Your task to perform on an android device: turn notification dots on Image 0: 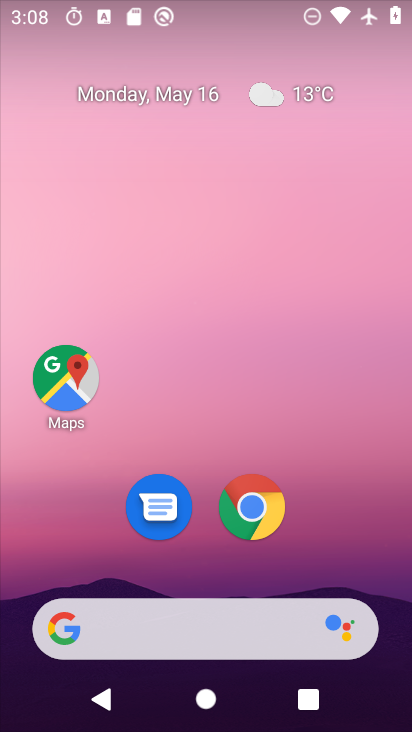
Step 0: drag from (176, 578) to (303, 227)
Your task to perform on an android device: turn notification dots on Image 1: 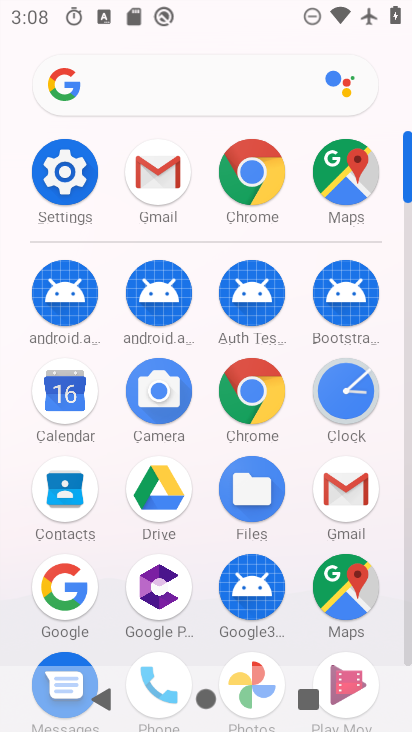
Step 1: click (91, 183)
Your task to perform on an android device: turn notification dots on Image 2: 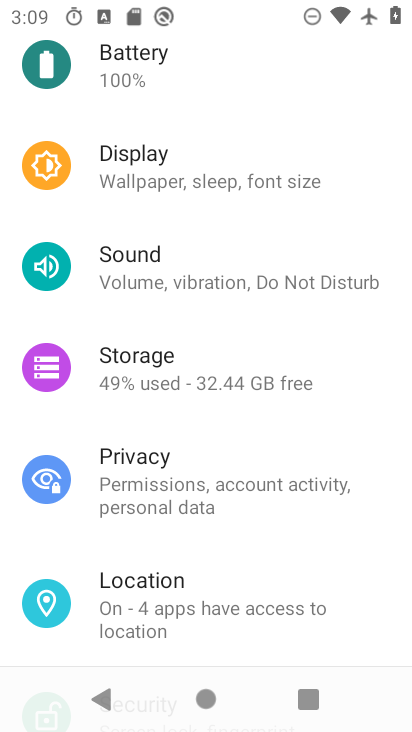
Step 2: drag from (243, 569) to (238, 707)
Your task to perform on an android device: turn notification dots on Image 3: 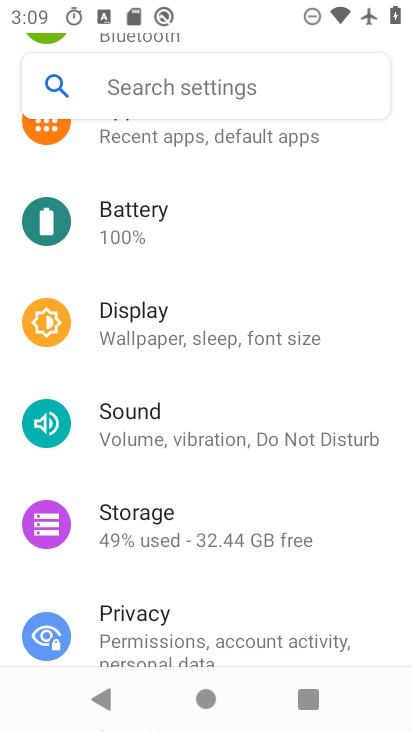
Step 3: drag from (250, 379) to (265, 616)
Your task to perform on an android device: turn notification dots on Image 4: 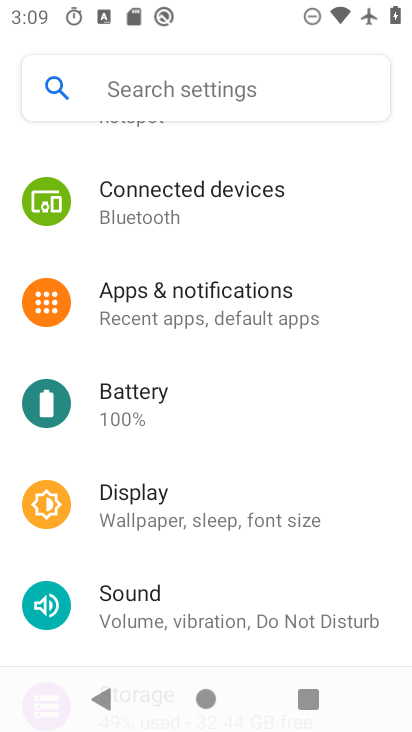
Step 4: click (249, 305)
Your task to perform on an android device: turn notification dots on Image 5: 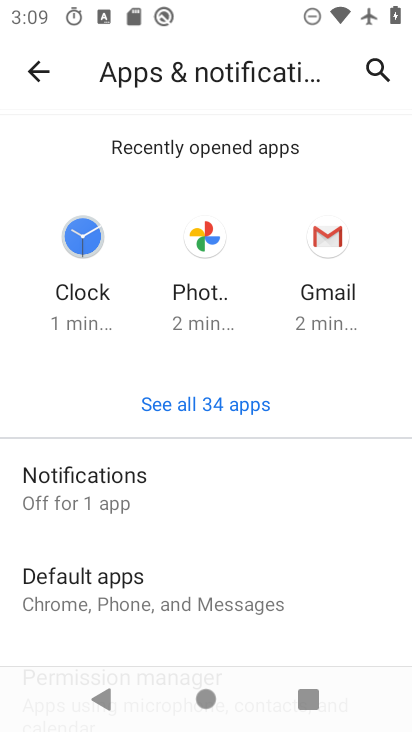
Step 5: drag from (178, 566) to (234, 172)
Your task to perform on an android device: turn notification dots on Image 6: 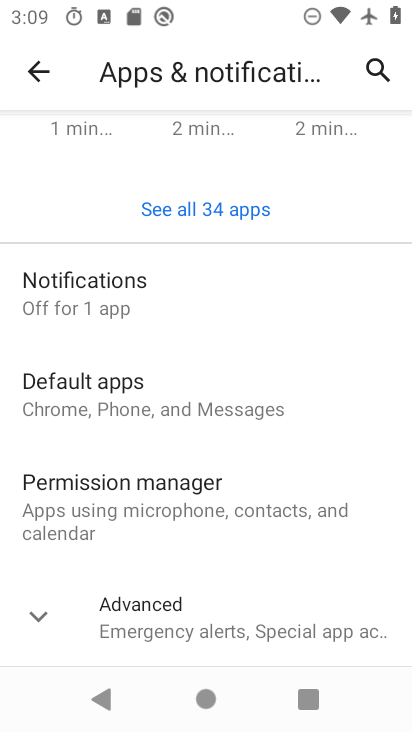
Step 6: click (176, 633)
Your task to perform on an android device: turn notification dots on Image 7: 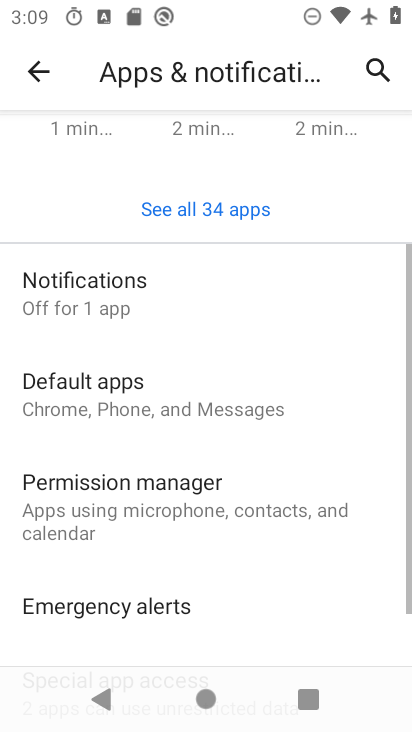
Step 7: drag from (175, 606) to (253, 178)
Your task to perform on an android device: turn notification dots on Image 8: 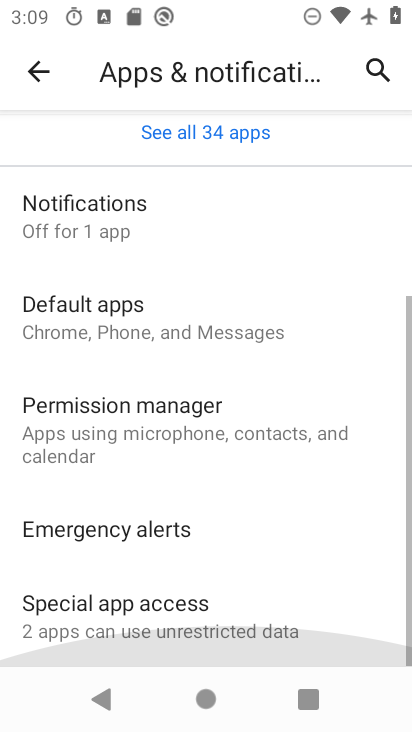
Step 8: drag from (265, 197) to (236, 469)
Your task to perform on an android device: turn notification dots on Image 9: 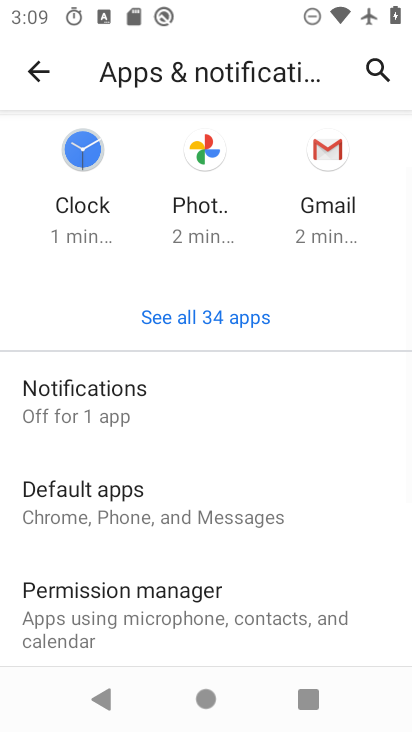
Step 9: click (167, 419)
Your task to perform on an android device: turn notification dots on Image 10: 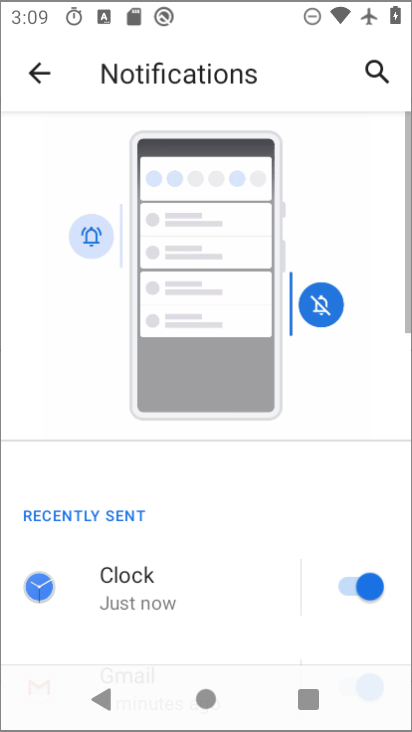
Step 10: drag from (188, 486) to (285, 131)
Your task to perform on an android device: turn notification dots on Image 11: 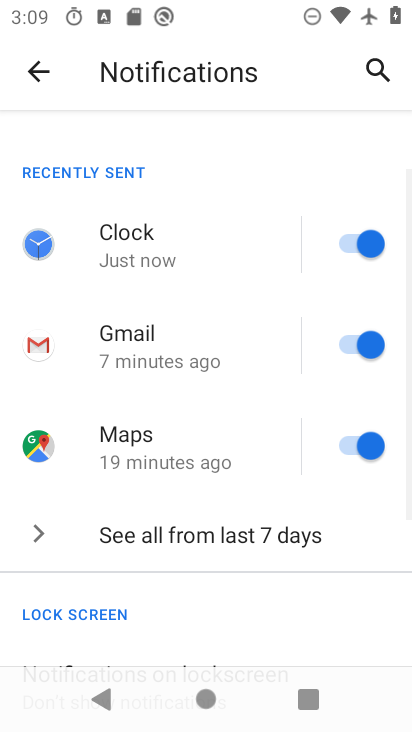
Step 11: drag from (202, 523) to (268, 172)
Your task to perform on an android device: turn notification dots on Image 12: 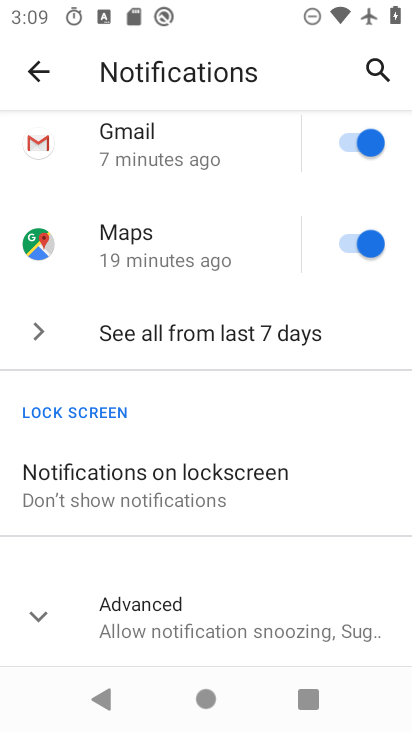
Step 12: click (201, 626)
Your task to perform on an android device: turn notification dots on Image 13: 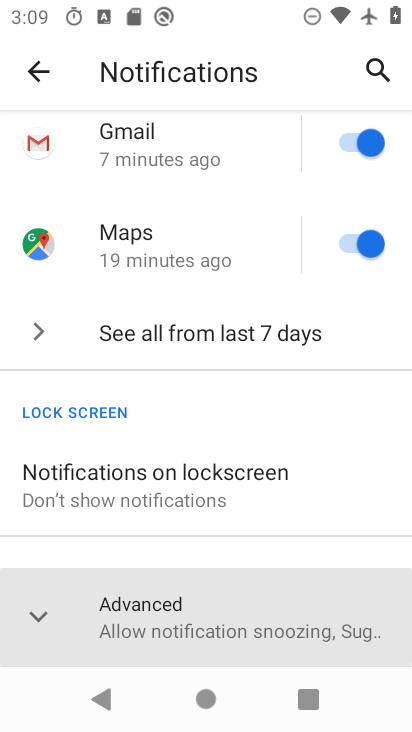
Step 13: task complete